Your task to perform on an android device: Open privacy settings Image 0: 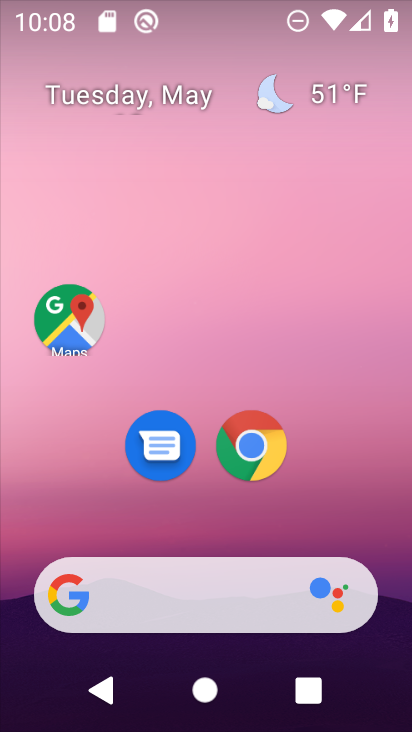
Step 0: drag from (205, 571) to (140, 38)
Your task to perform on an android device: Open privacy settings Image 1: 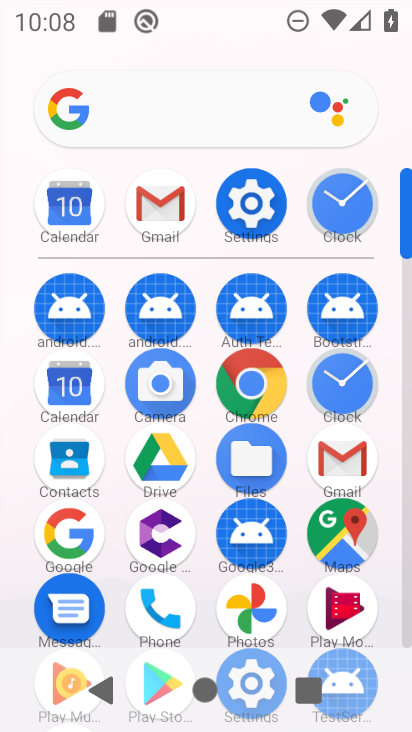
Step 1: click (256, 199)
Your task to perform on an android device: Open privacy settings Image 2: 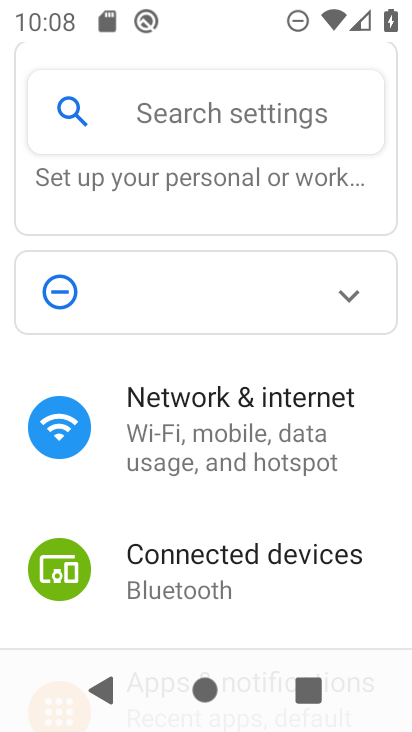
Step 2: drag from (141, 508) to (105, 4)
Your task to perform on an android device: Open privacy settings Image 3: 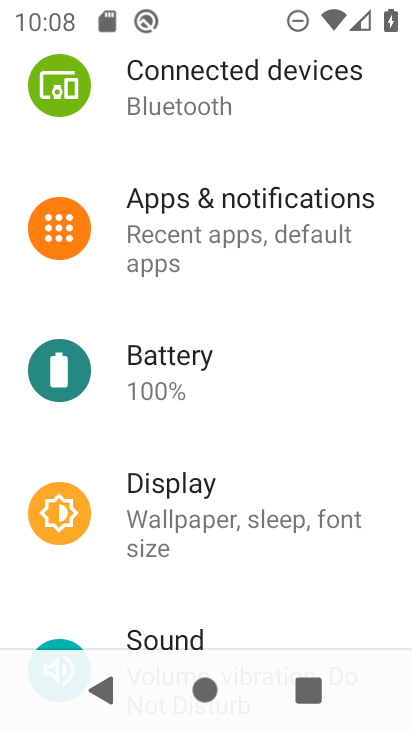
Step 3: drag from (153, 543) to (142, 129)
Your task to perform on an android device: Open privacy settings Image 4: 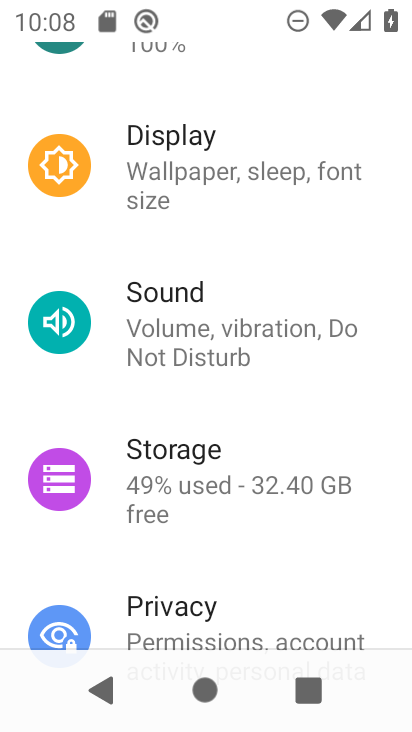
Step 4: click (169, 613)
Your task to perform on an android device: Open privacy settings Image 5: 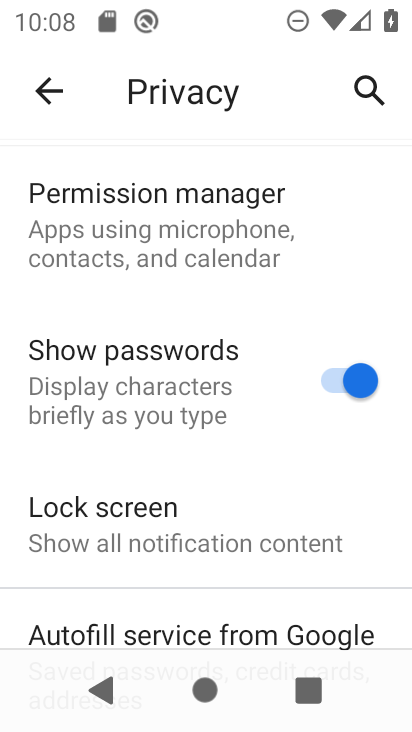
Step 5: task complete